Your task to perform on an android device: Open network settings Image 0: 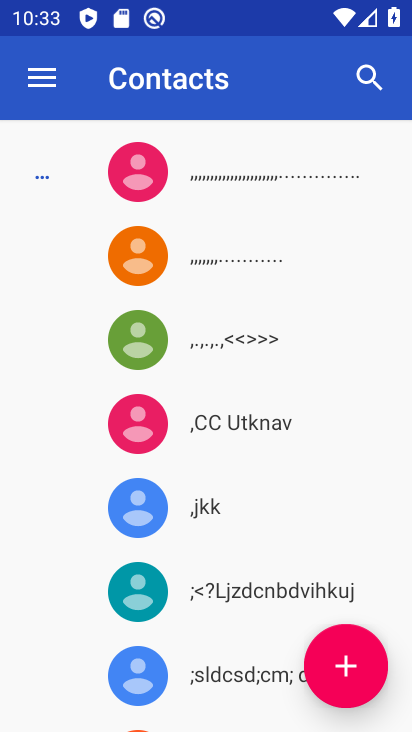
Step 0: press home button
Your task to perform on an android device: Open network settings Image 1: 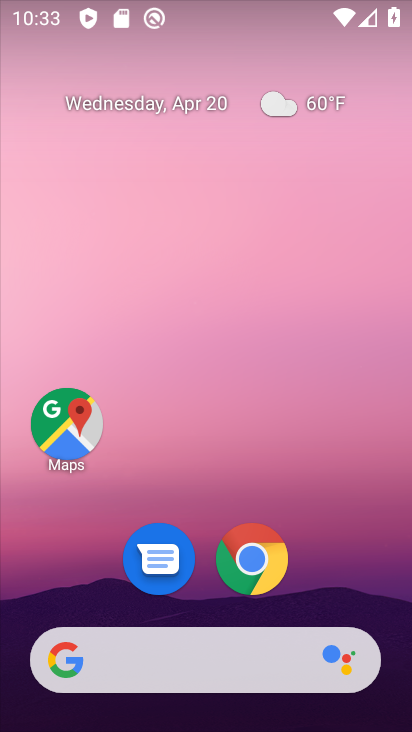
Step 1: drag from (277, 609) to (238, 33)
Your task to perform on an android device: Open network settings Image 2: 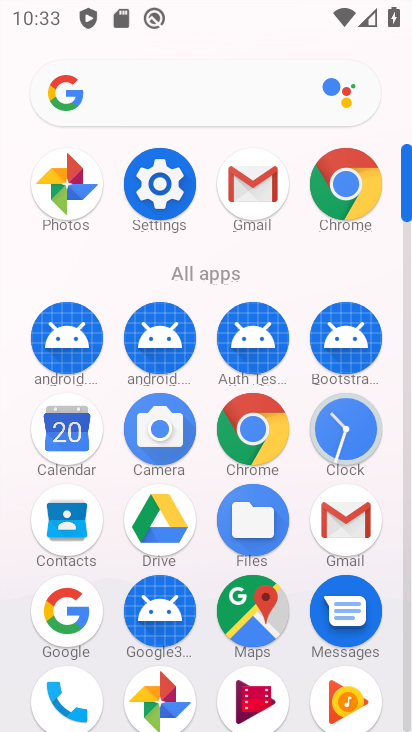
Step 2: drag from (203, 203) to (204, 131)
Your task to perform on an android device: Open network settings Image 3: 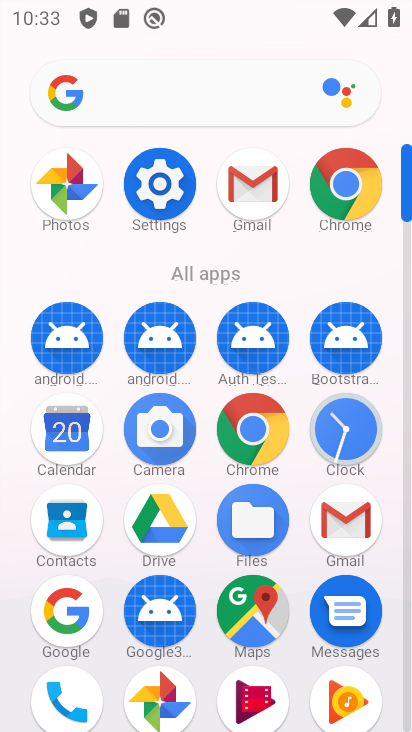
Step 3: drag from (303, 572) to (281, 217)
Your task to perform on an android device: Open network settings Image 4: 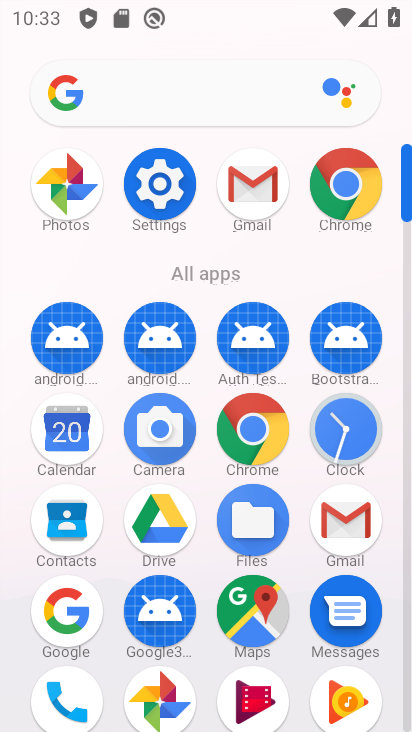
Step 4: click (158, 180)
Your task to perform on an android device: Open network settings Image 5: 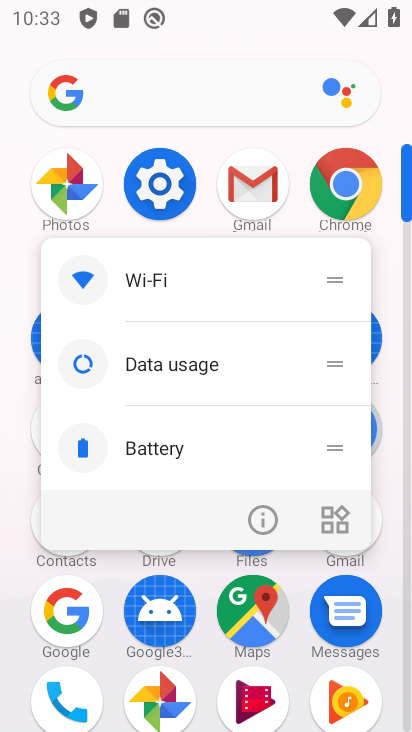
Step 5: click (158, 180)
Your task to perform on an android device: Open network settings Image 6: 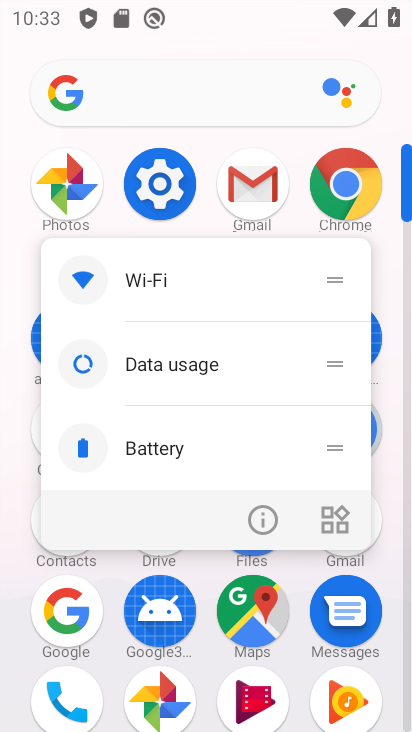
Step 6: click (156, 181)
Your task to perform on an android device: Open network settings Image 7: 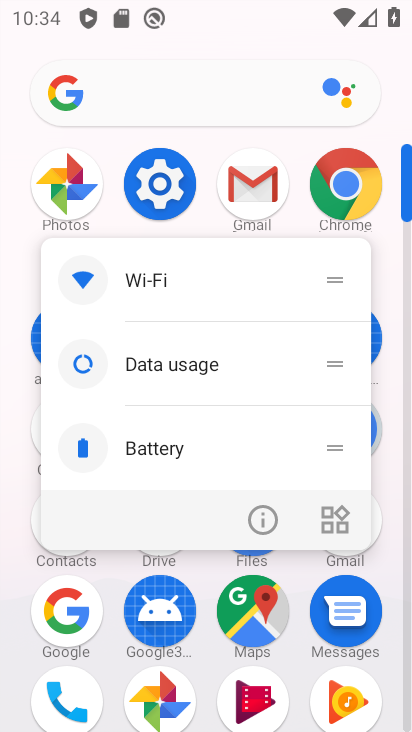
Step 7: click (156, 181)
Your task to perform on an android device: Open network settings Image 8: 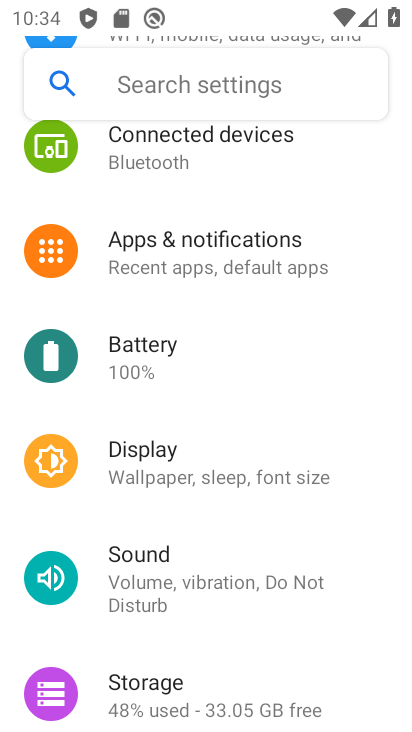
Step 8: click (156, 181)
Your task to perform on an android device: Open network settings Image 9: 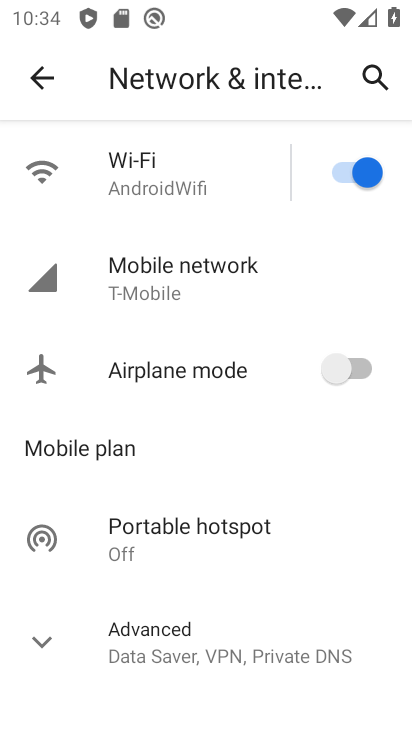
Step 9: click (171, 278)
Your task to perform on an android device: Open network settings Image 10: 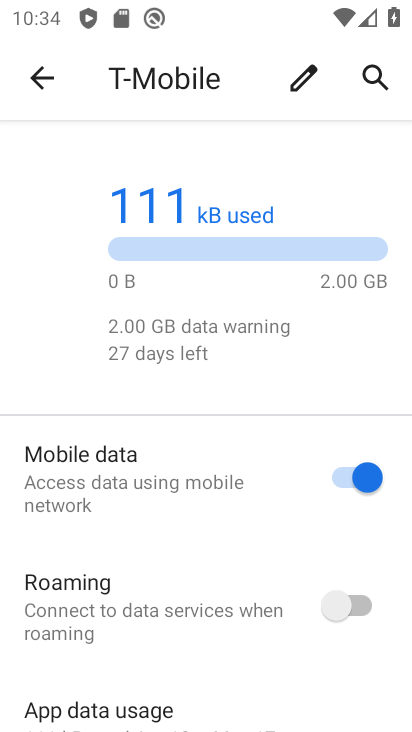
Step 10: task complete